Your task to perform on an android device: turn off improve location accuracy Image 0: 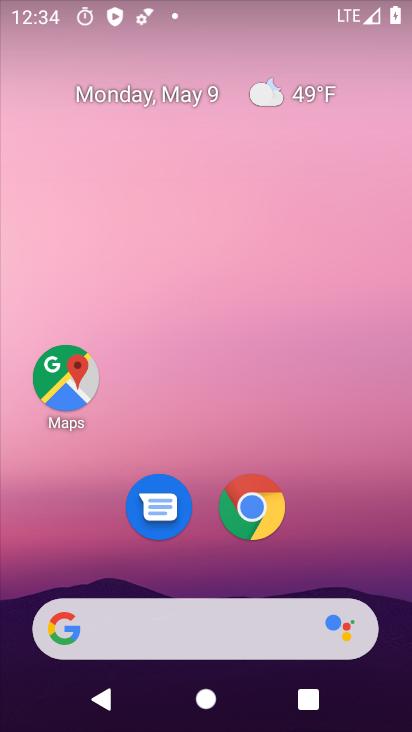
Step 0: drag from (235, 718) to (235, 110)
Your task to perform on an android device: turn off improve location accuracy Image 1: 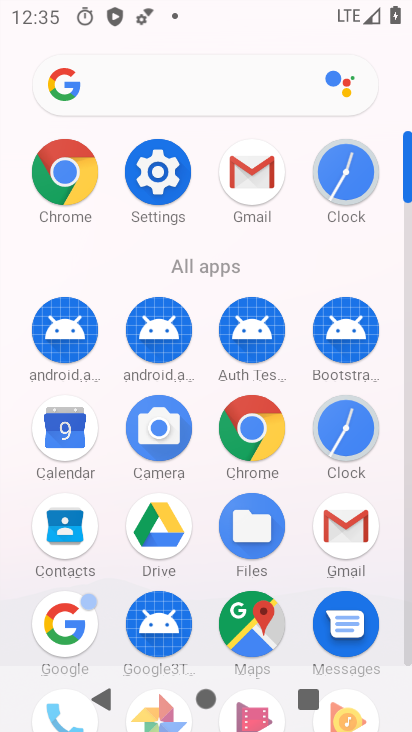
Step 1: click (158, 169)
Your task to perform on an android device: turn off improve location accuracy Image 2: 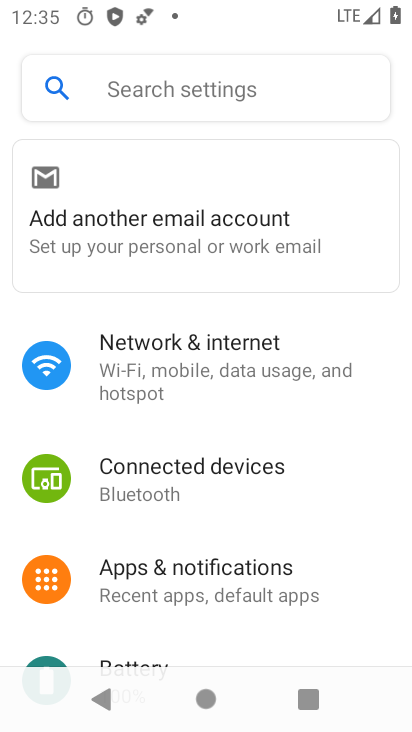
Step 2: drag from (182, 644) to (184, 351)
Your task to perform on an android device: turn off improve location accuracy Image 3: 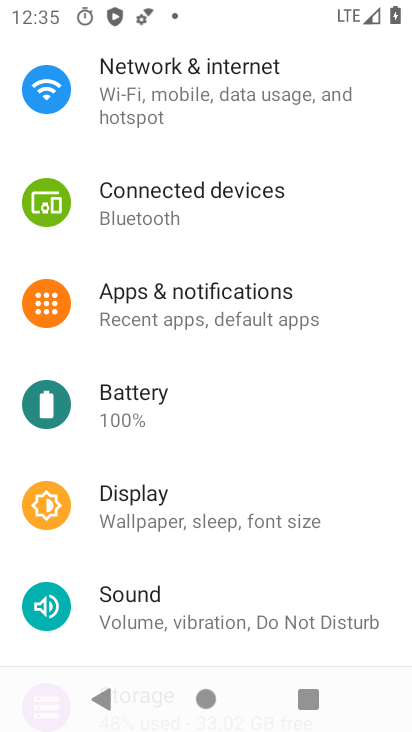
Step 3: drag from (235, 655) to (240, 227)
Your task to perform on an android device: turn off improve location accuracy Image 4: 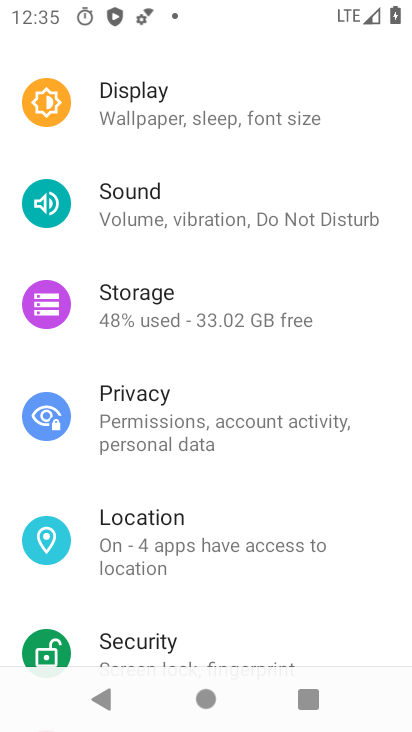
Step 4: click (148, 518)
Your task to perform on an android device: turn off improve location accuracy Image 5: 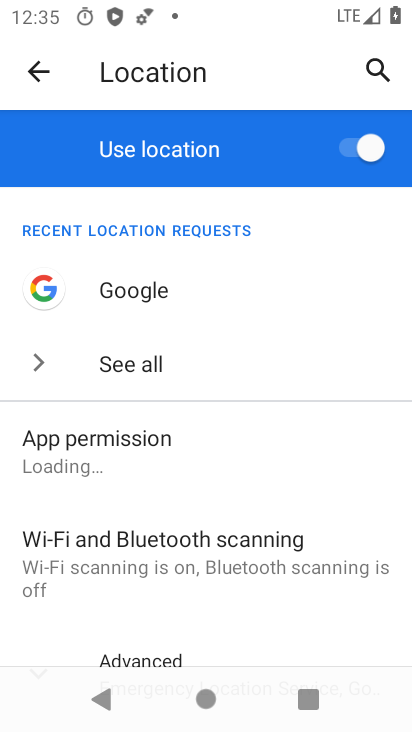
Step 5: drag from (203, 636) to (210, 324)
Your task to perform on an android device: turn off improve location accuracy Image 6: 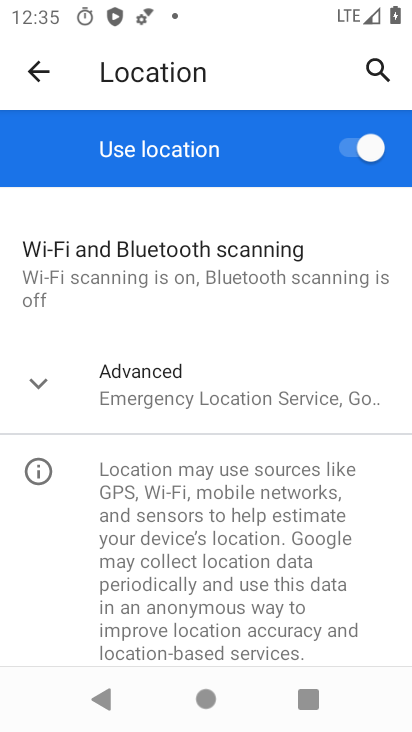
Step 6: click (168, 394)
Your task to perform on an android device: turn off improve location accuracy Image 7: 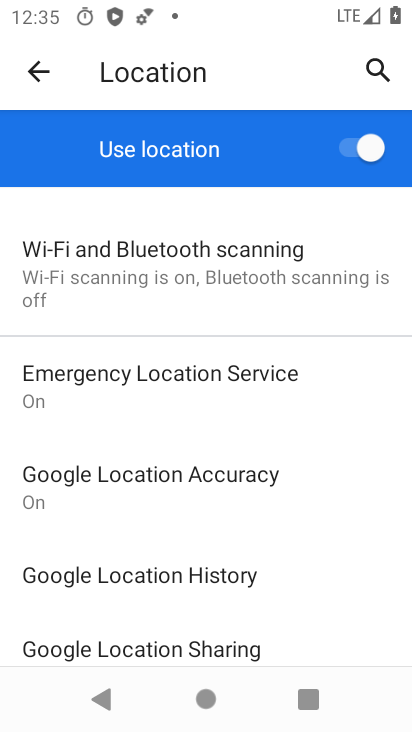
Step 7: click (146, 473)
Your task to perform on an android device: turn off improve location accuracy Image 8: 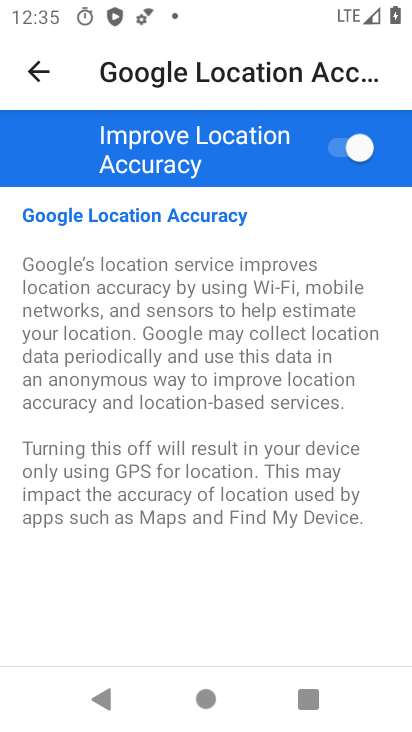
Step 8: click (342, 150)
Your task to perform on an android device: turn off improve location accuracy Image 9: 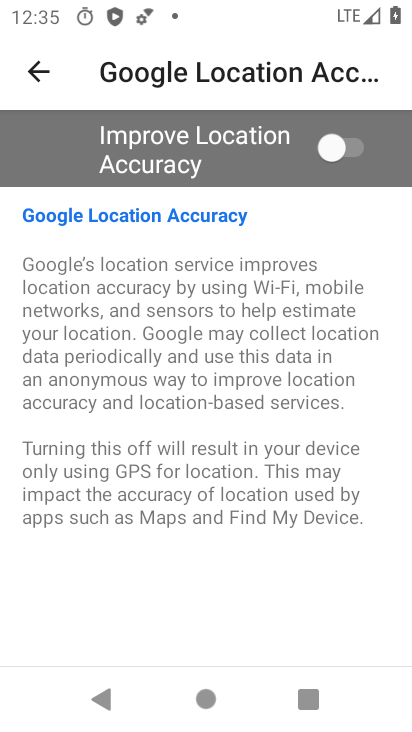
Step 9: task complete